Your task to perform on an android device: Open ESPN.com Image 0: 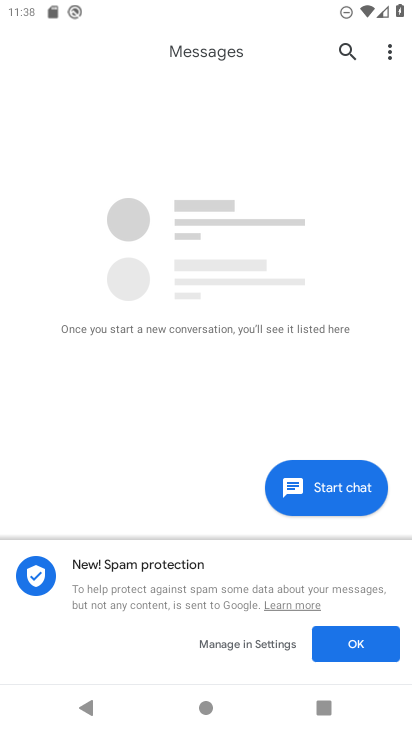
Step 0: press home button
Your task to perform on an android device: Open ESPN.com Image 1: 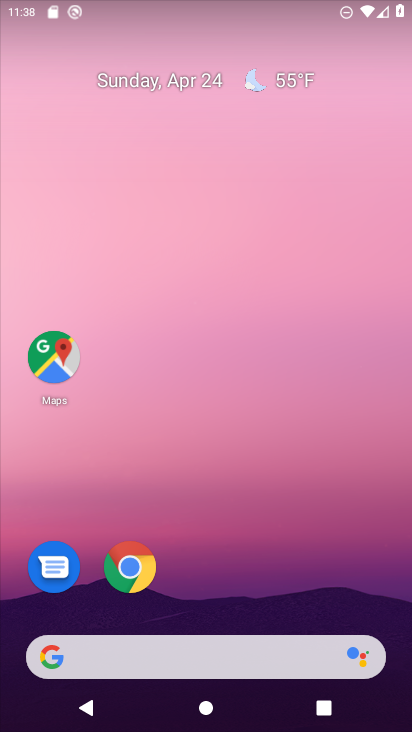
Step 1: click (129, 565)
Your task to perform on an android device: Open ESPN.com Image 2: 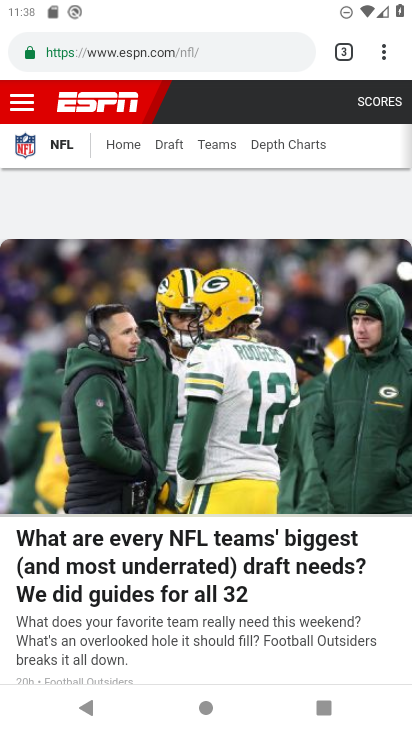
Step 2: click (382, 50)
Your task to perform on an android device: Open ESPN.com Image 3: 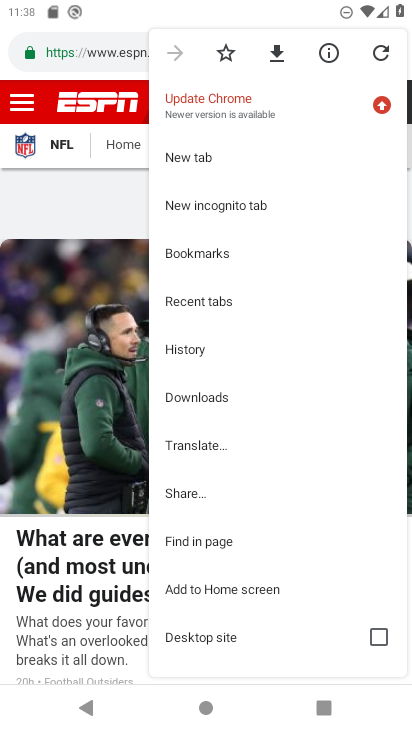
Step 3: click (109, 220)
Your task to perform on an android device: Open ESPN.com Image 4: 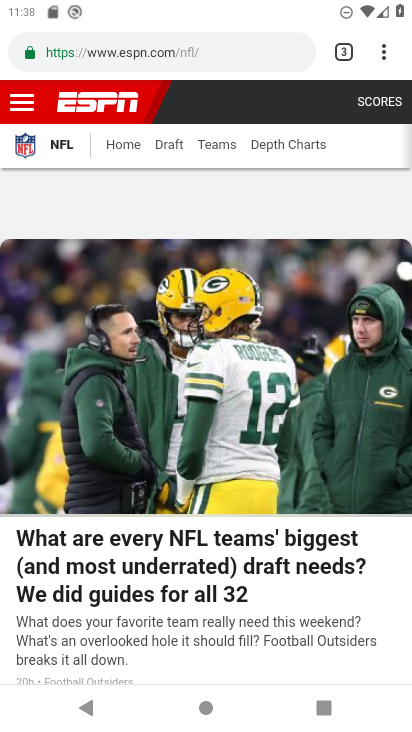
Step 4: click (286, 41)
Your task to perform on an android device: Open ESPN.com Image 5: 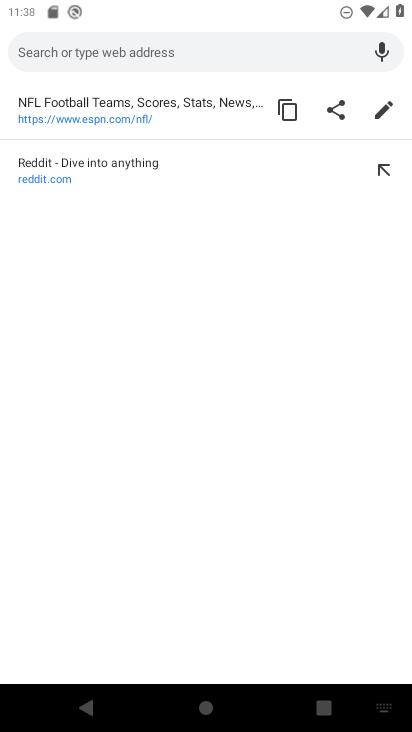
Step 5: type "ESPN.com"
Your task to perform on an android device: Open ESPN.com Image 6: 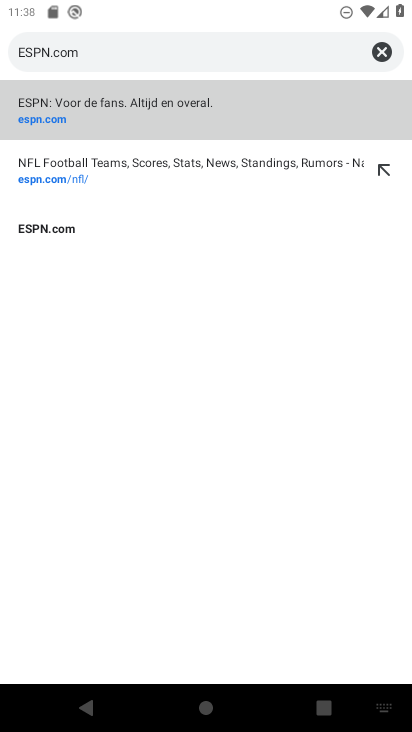
Step 6: click (64, 221)
Your task to perform on an android device: Open ESPN.com Image 7: 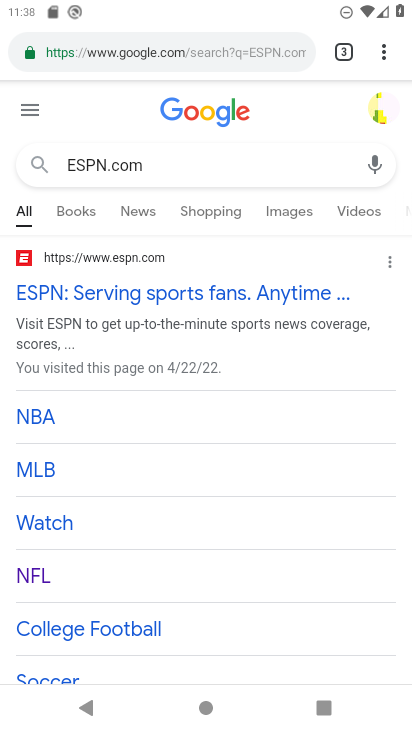
Step 7: task complete